Your task to perform on an android device: turn off notifications in google photos Image 0: 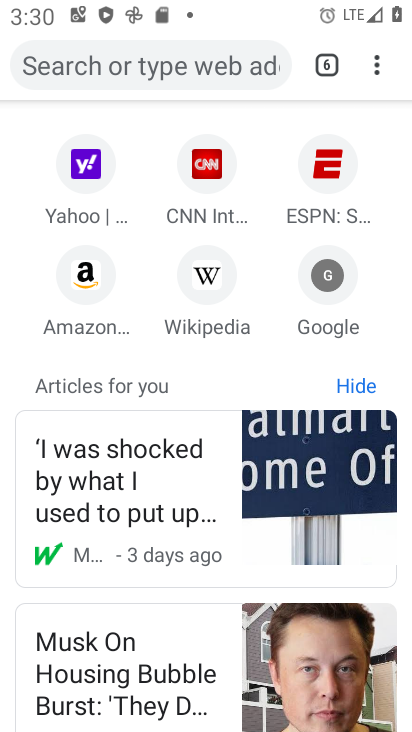
Step 0: press home button
Your task to perform on an android device: turn off notifications in google photos Image 1: 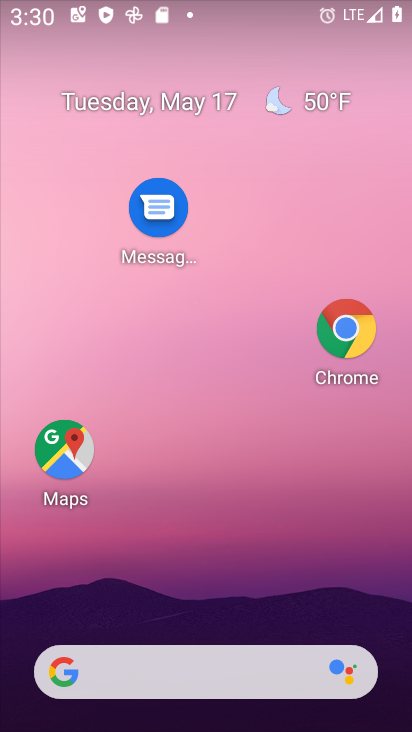
Step 1: drag from (182, 564) to (137, 119)
Your task to perform on an android device: turn off notifications in google photos Image 2: 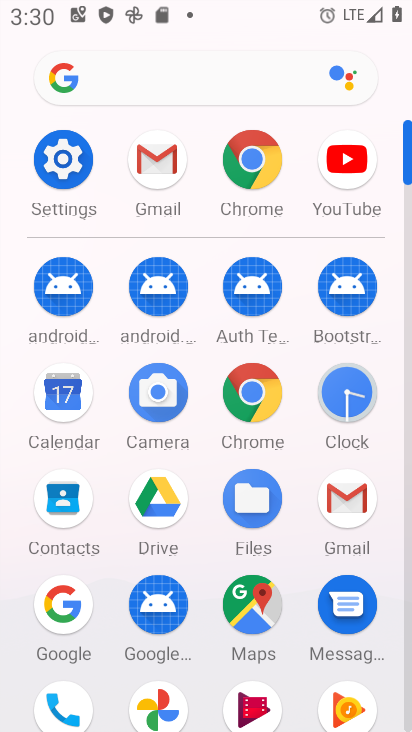
Step 2: click (141, 706)
Your task to perform on an android device: turn off notifications in google photos Image 3: 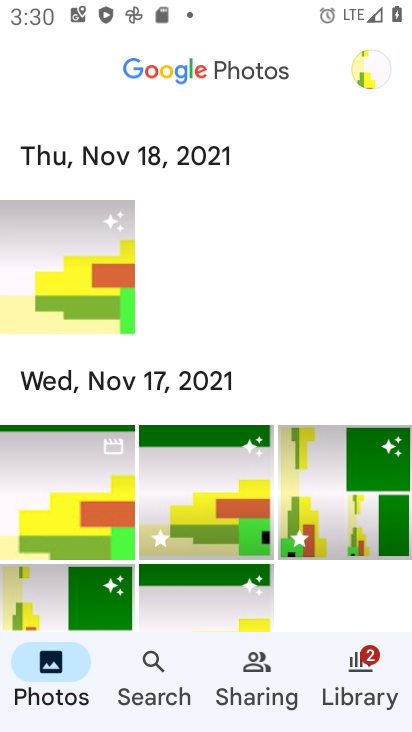
Step 3: click (371, 82)
Your task to perform on an android device: turn off notifications in google photos Image 4: 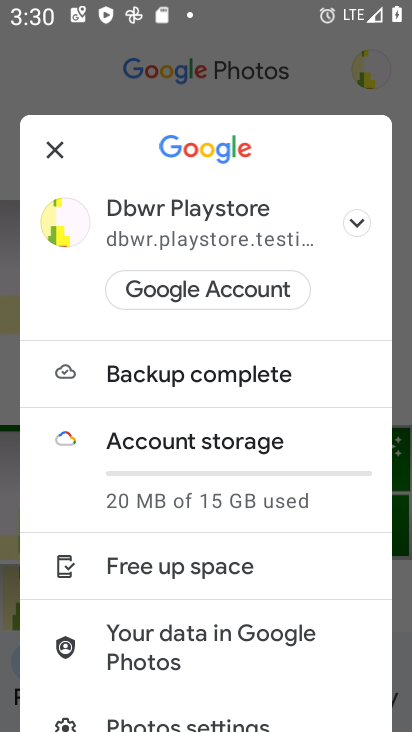
Step 4: drag from (193, 687) to (222, 344)
Your task to perform on an android device: turn off notifications in google photos Image 5: 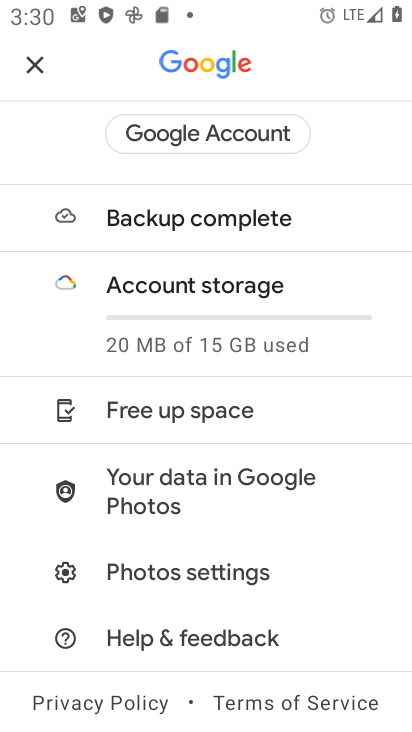
Step 5: click (204, 576)
Your task to perform on an android device: turn off notifications in google photos Image 6: 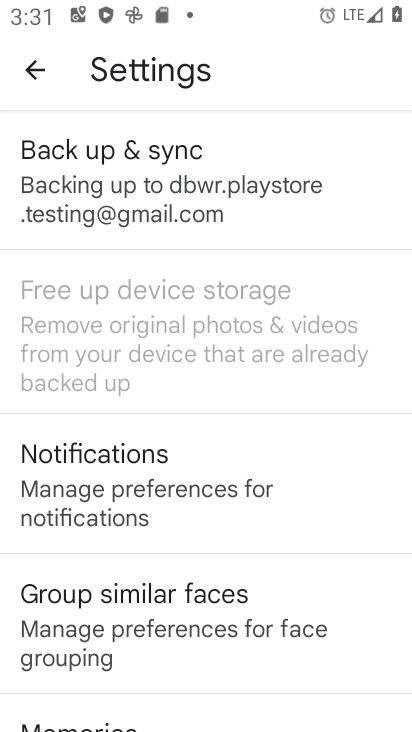
Step 6: click (149, 515)
Your task to perform on an android device: turn off notifications in google photos Image 7: 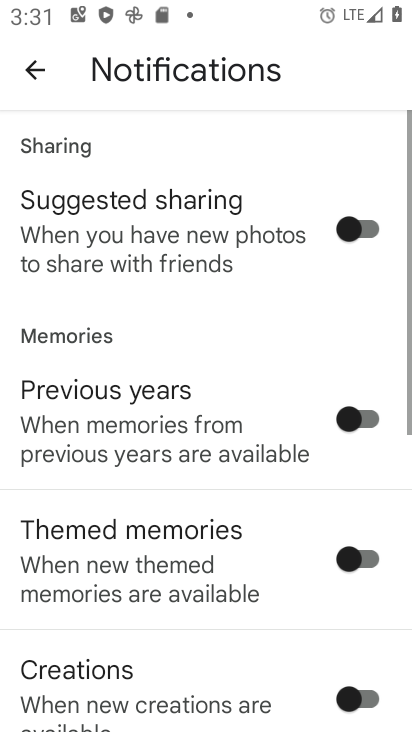
Step 7: click (149, 515)
Your task to perform on an android device: turn off notifications in google photos Image 8: 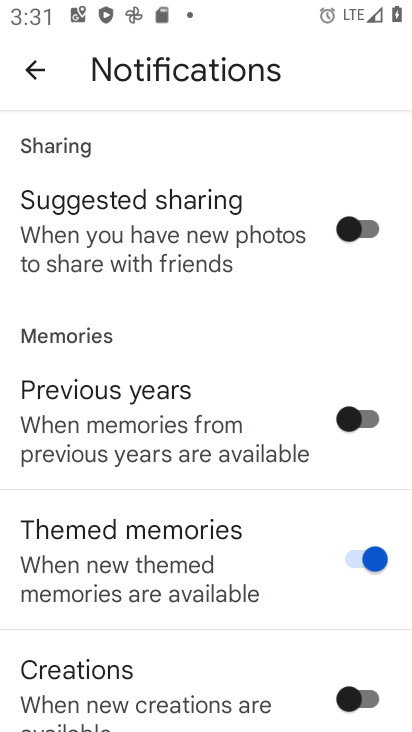
Step 8: task complete